Your task to perform on an android device: Open calendar and show me the first week of next month Image 0: 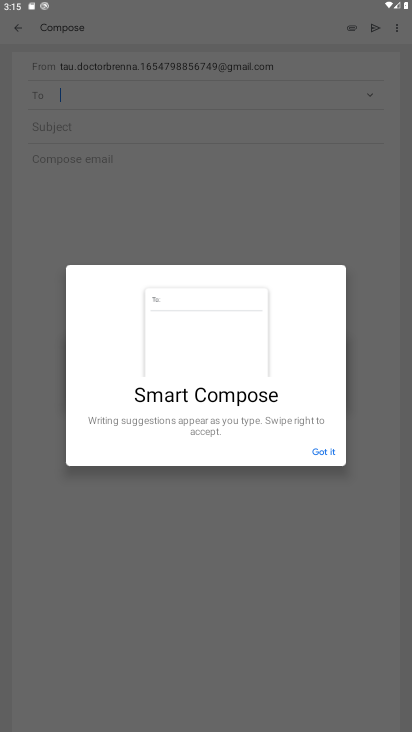
Step 0: press home button
Your task to perform on an android device: Open calendar and show me the first week of next month Image 1: 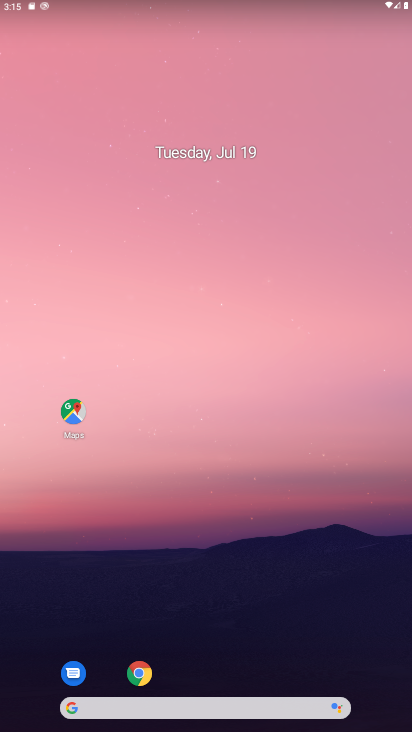
Step 1: drag from (201, 647) to (220, 120)
Your task to perform on an android device: Open calendar and show me the first week of next month Image 2: 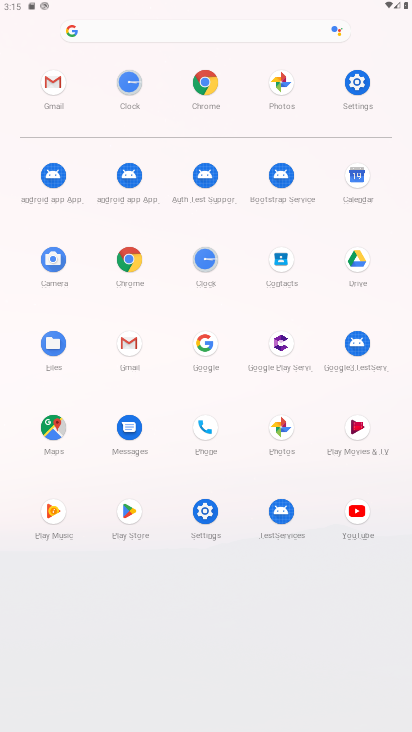
Step 2: click (361, 183)
Your task to perform on an android device: Open calendar and show me the first week of next month Image 3: 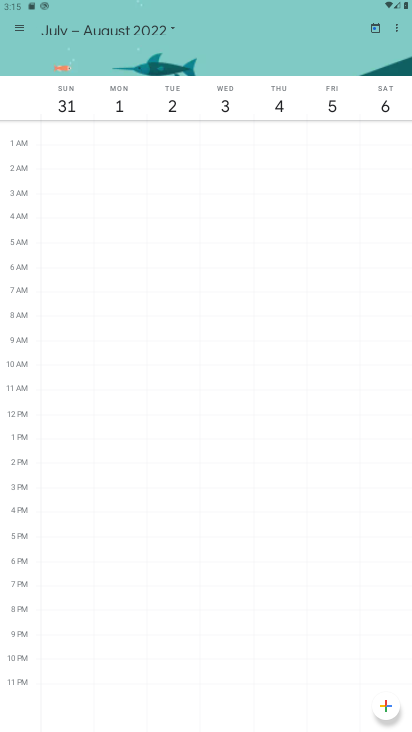
Step 3: task complete